Your task to perform on an android device: turn off airplane mode Image 0: 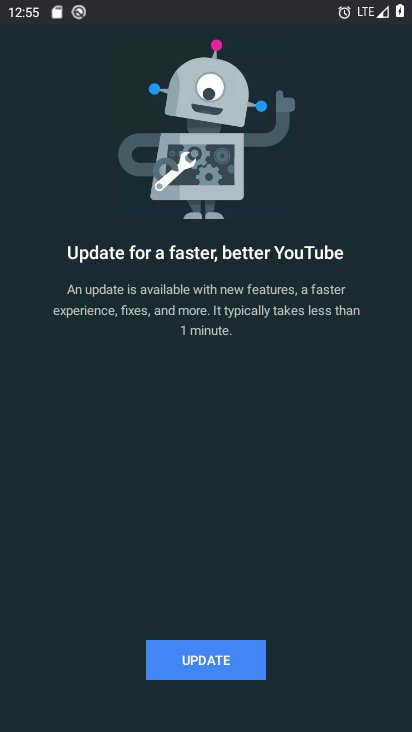
Step 0: press home button
Your task to perform on an android device: turn off airplane mode Image 1: 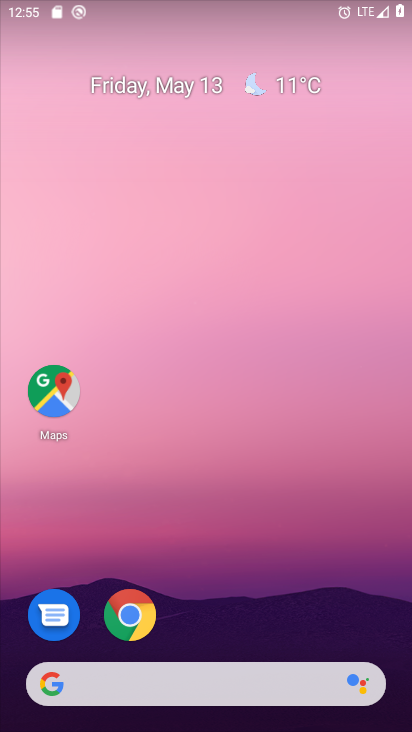
Step 1: drag from (213, 593) to (180, 20)
Your task to perform on an android device: turn off airplane mode Image 2: 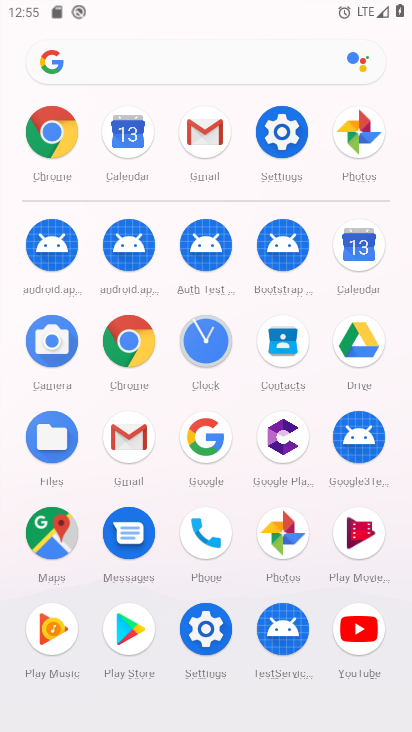
Step 2: click (274, 132)
Your task to perform on an android device: turn off airplane mode Image 3: 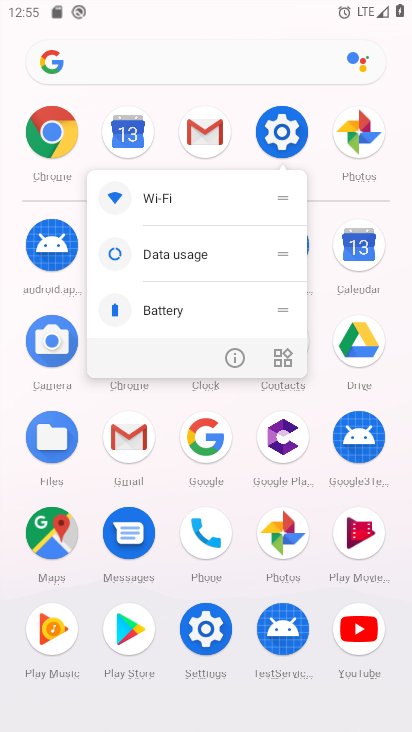
Step 3: click (279, 131)
Your task to perform on an android device: turn off airplane mode Image 4: 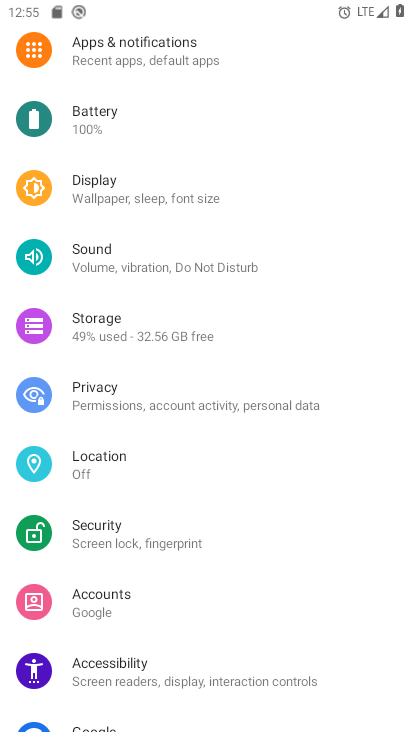
Step 4: drag from (228, 307) to (261, 638)
Your task to perform on an android device: turn off airplane mode Image 5: 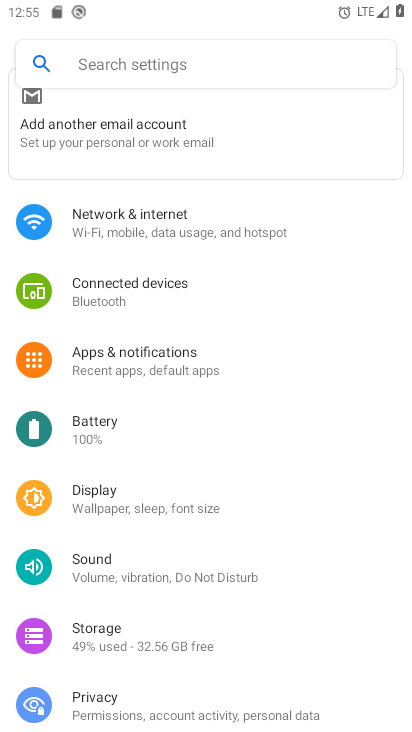
Step 5: click (224, 212)
Your task to perform on an android device: turn off airplane mode Image 6: 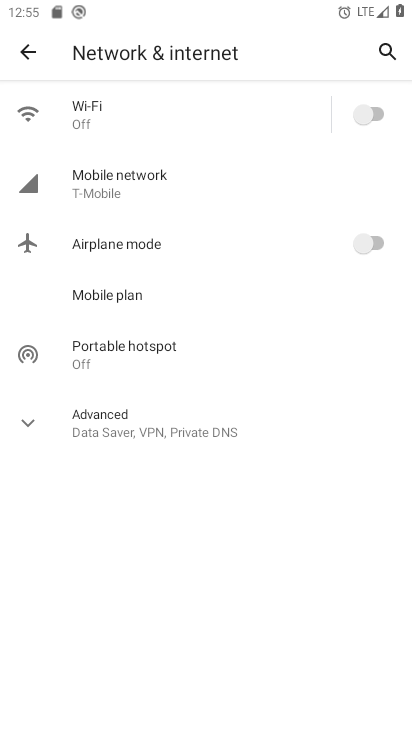
Step 6: task complete